Your task to perform on an android device: show emergency info Image 0: 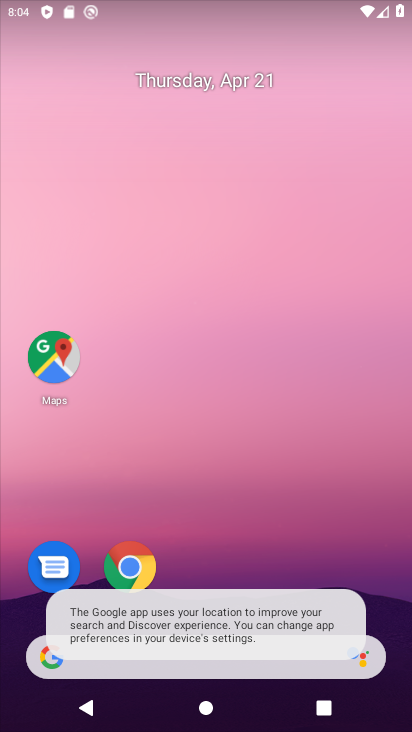
Step 0: drag from (184, 622) to (243, 3)
Your task to perform on an android device: show emergency info Image 1: 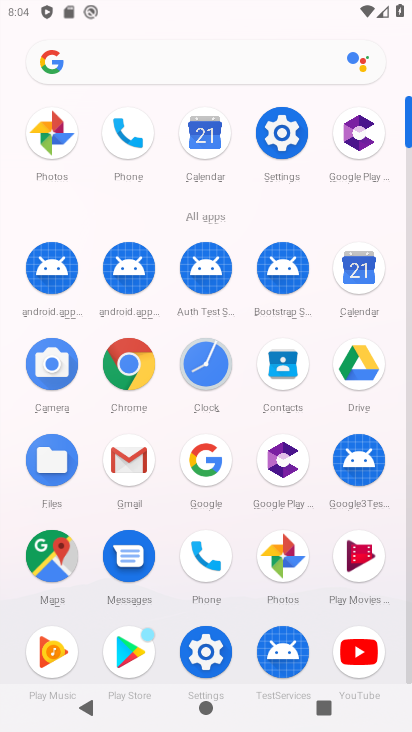
Step 1: click (271, 132)
Your task to perform on an android device: show emergency info Image 2: 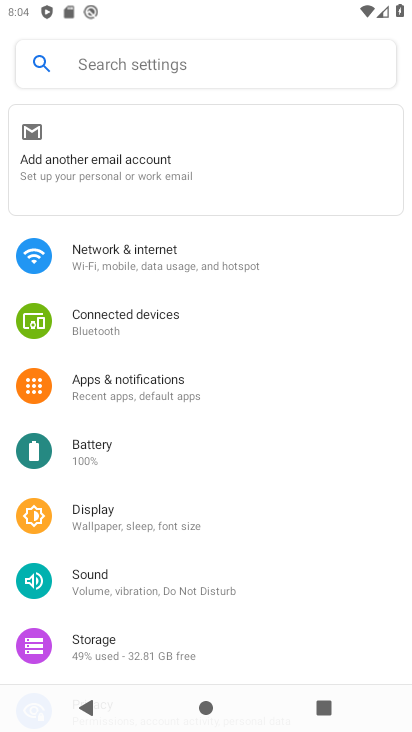
Step 2: drag from (197, 487) to (156, 10)
Your task to perform on an android device: show emergency info Image 3: 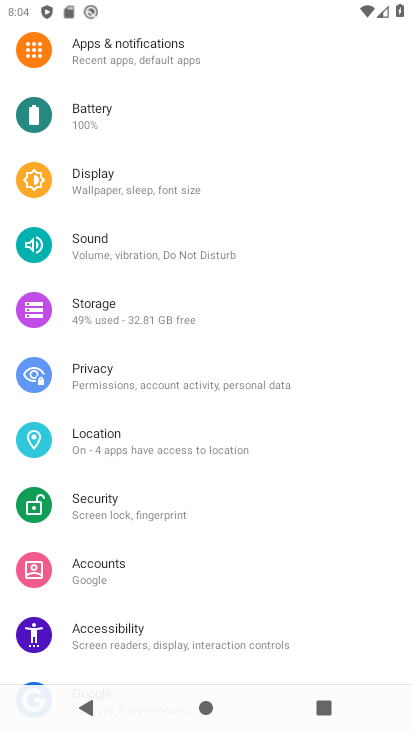
Step 3: drag from (139, 577) to (100, 16)
Your task to perform on an android device: show emergency info Image 4: 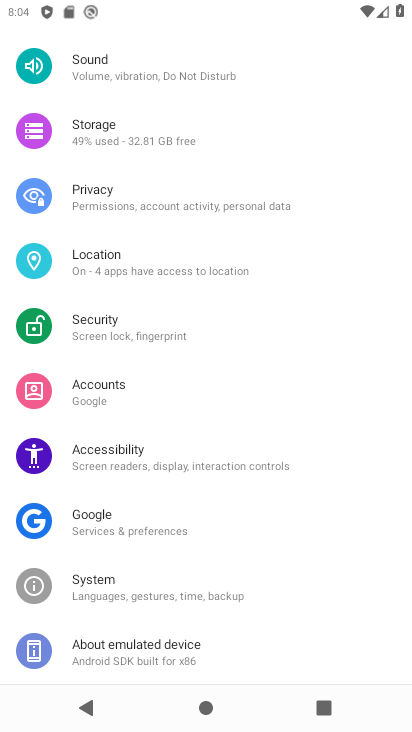
Step 4: click (101, 643)
Your task to perform on an android device: show emergency info Image 5: 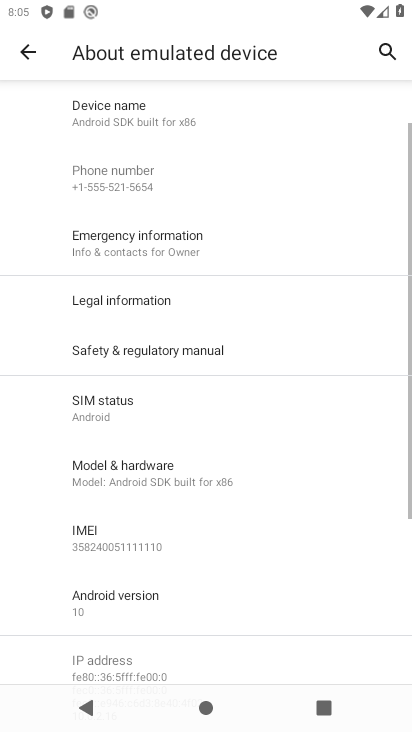
Step 5: click (141, 236)
Your task to perform on an android device: show emergency info Image 6: 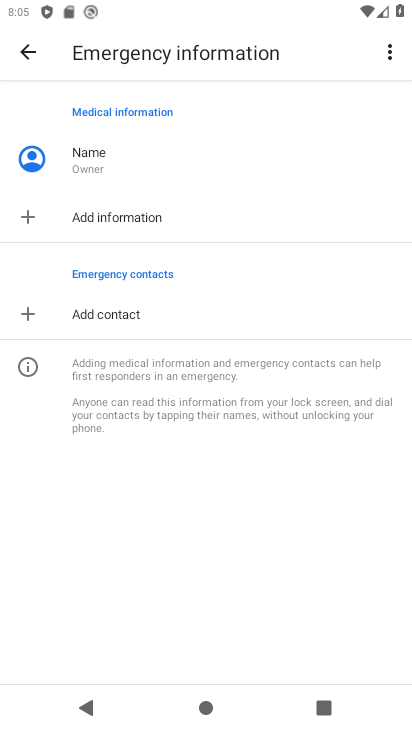
Step 6: task complete